Your task to perform on an android device: Search for sushi restaurants on Maps Image 0: 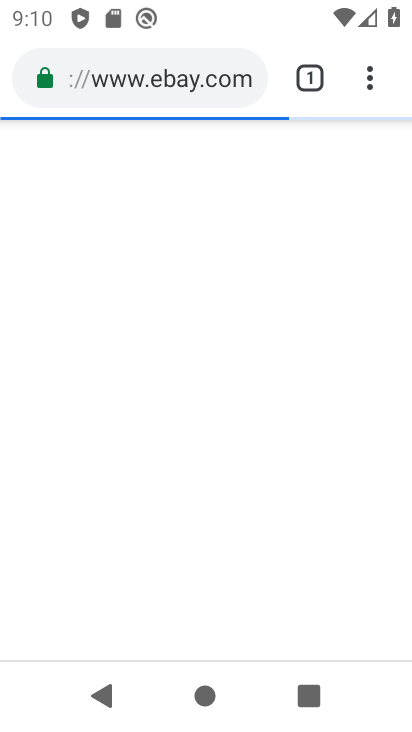
Step 0: press home button
Your task to perform on an android device: Search for sushi restaurants on Maps Image 1: 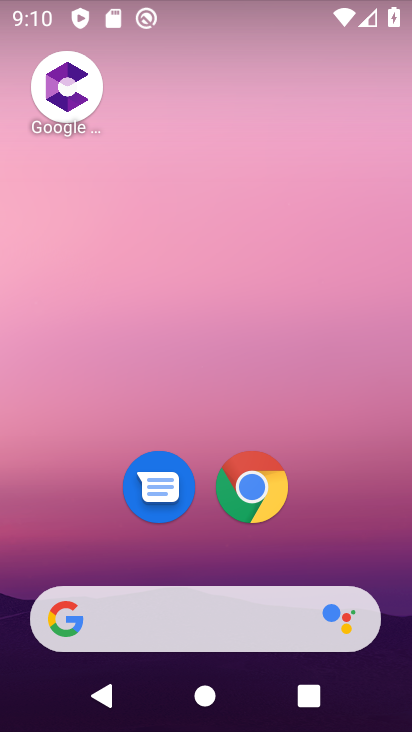
Step 1: drag from (354, 520) to (363, 77)
Your task to perform on an android device: Search for sushi restaurants on Maps Image 2: 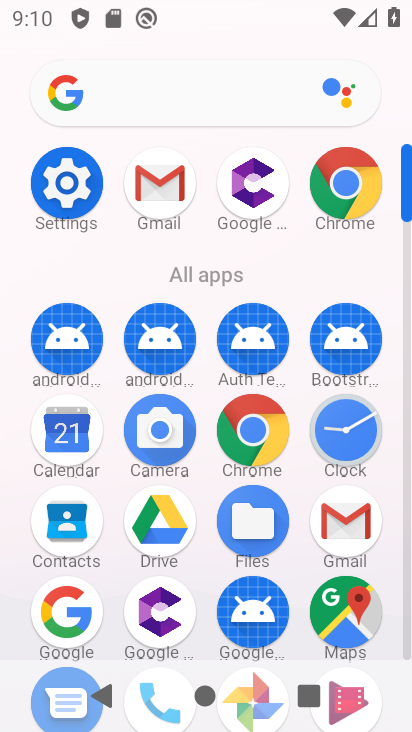
Step 2: drag from (391, 559) to (389, 245)
Your task to perform on an android device: Search for sushi restaurants on Maps Image 3: 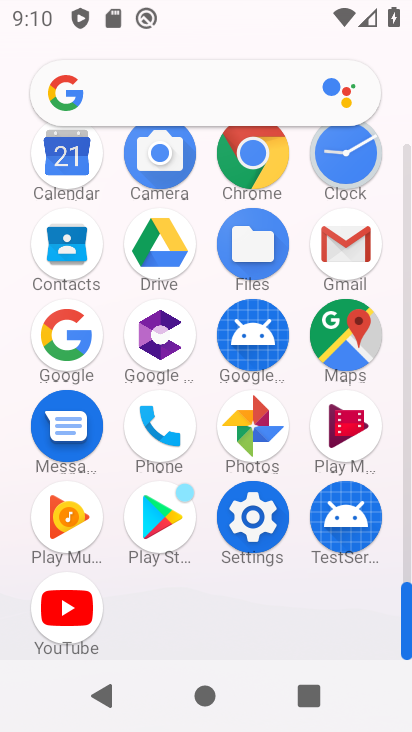
Step 3: click (354, 337)
Your task to perform on an android device: Search for sushi restaurants on Maps Image 4: 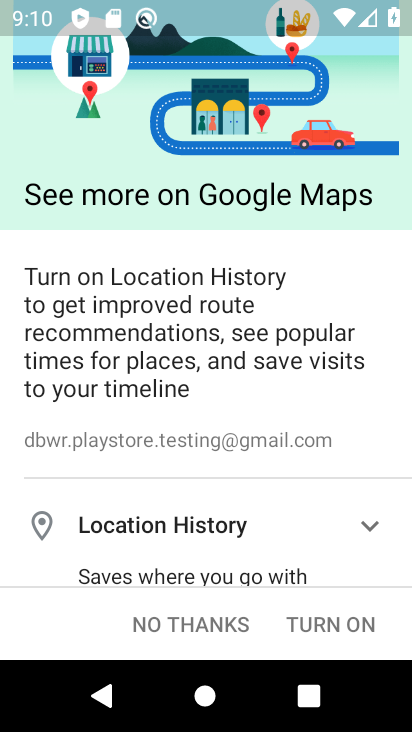
Step 4: click (201, 631)
Your task to perform on an android device: Search for sushi restaurants on Maps Image 5: 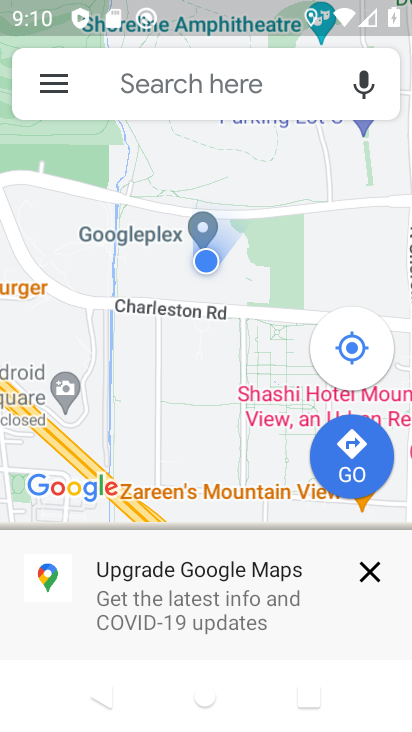
Step 5: click (245, 81)
Your task to perform on an android device: Search for sushi restaurants on Maps Image 6: 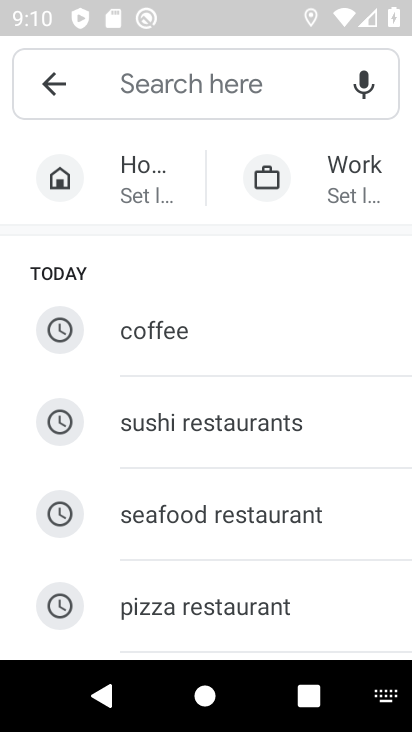
Step 6: type "sushi restaurants"
Your task to perform on an android device: Search for sushi restaurants on Maps Image 7: 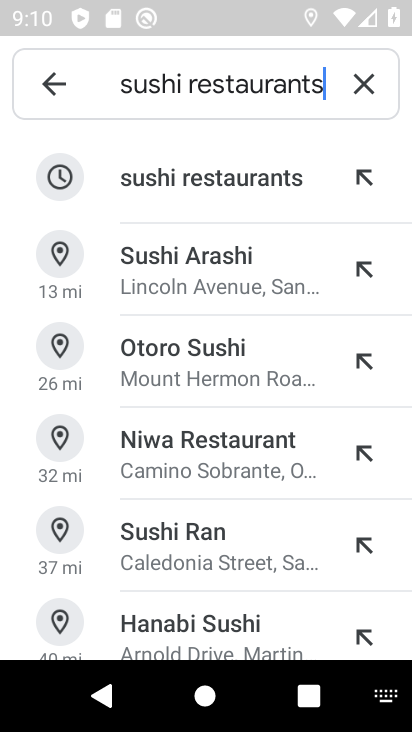
Step 7: click (246, 186)
Your task to perform on an android device: Search for sushi restaurants on Maps Image 8: 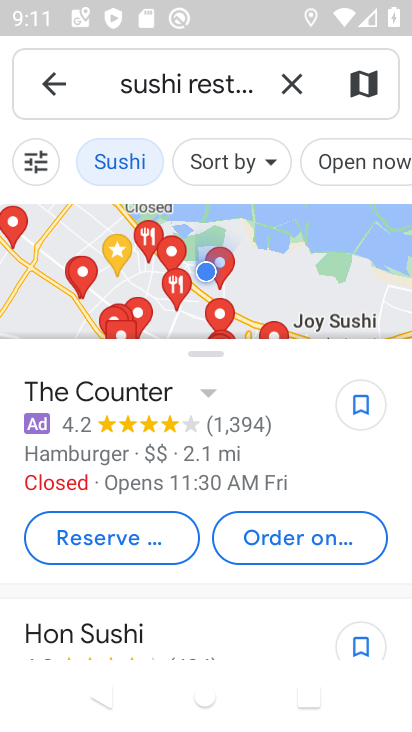
Step 8: task complete